Your task to perform on an android device: Do I have any events today? Image 0: 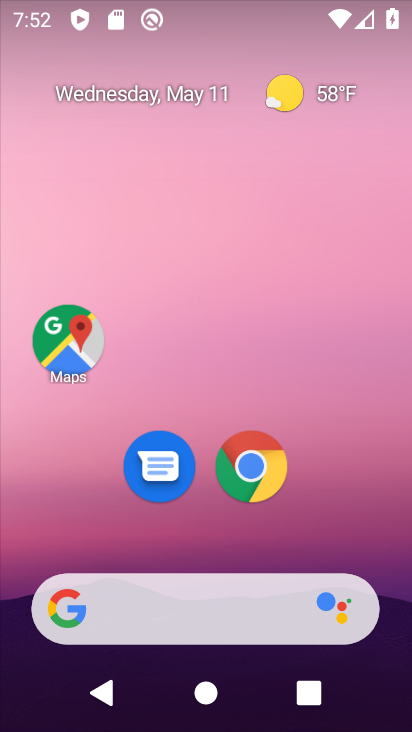
Step 0: drag from (310, 517) to (273, 21)
Your task to perform on an android device: Do I have any events today? Image 1: 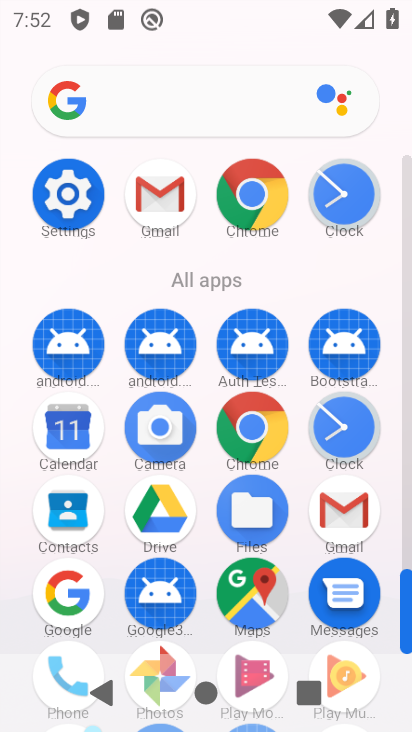
Step 1: click (61, 438)
Your task to perform on an android device: Do I have any events today? Image 2: 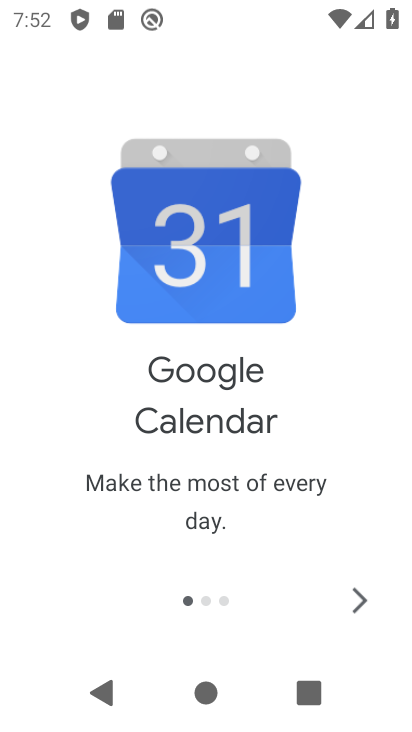
Step 2: click (348, 611)
Your task to perform on an android device: Do I have any events today? Image 3: 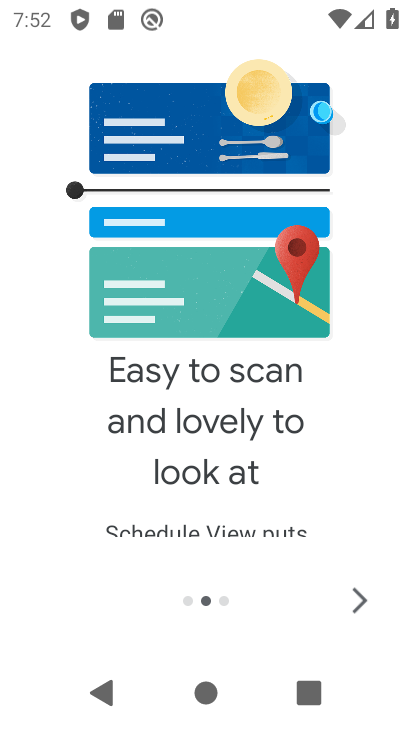
Step 3: click (362, 603)
Your task to perform on an android device: Do I have any events today? Image 4: 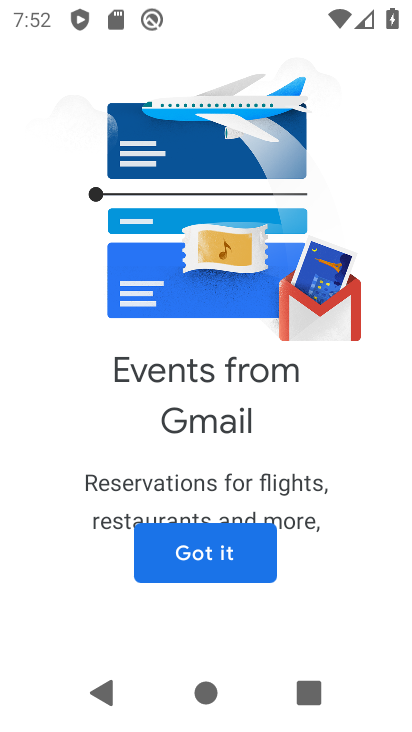
Step 4: click (265, 555)
Your task to perform on an android device: Do I have any events today? Image 5: 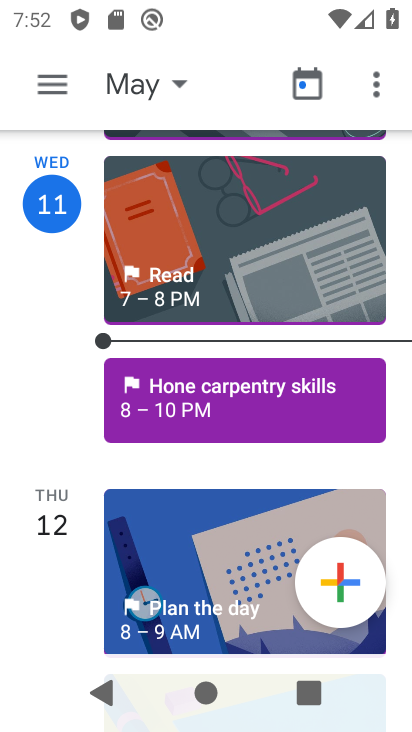
Step 5: click (168, 87)
Your task to perform on an android device: Do I have any events today? Image 6: 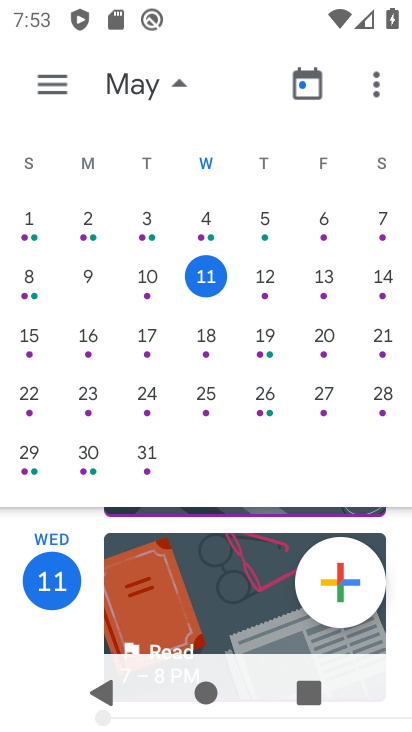
Step 6: click (203, 270)
Your task to perform on an android device: Do I have any events today? Image 7: 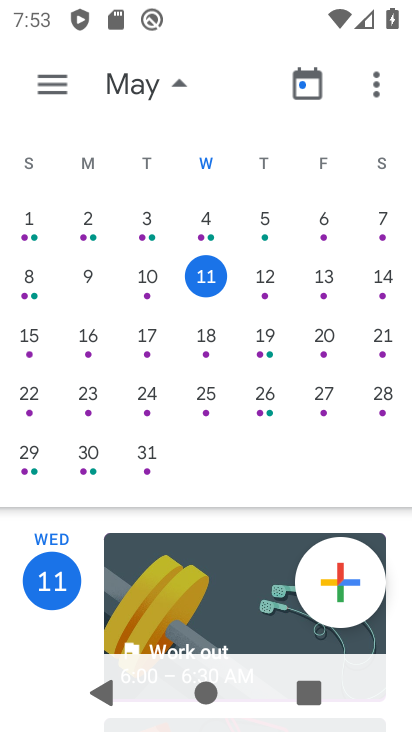
Step 7: task complete